Your task to perform on an android device: change the upload size in google photos Image 0: 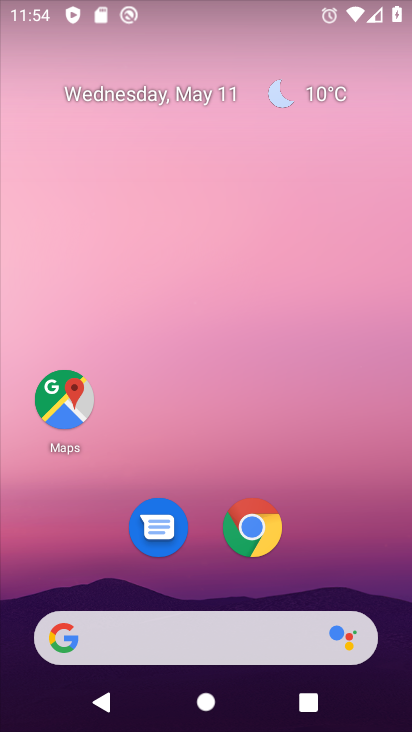
Step 0: drag from (235, 586) to (268, 27)
Your task to perform on an android device: change the upload size in google photos Image 1: 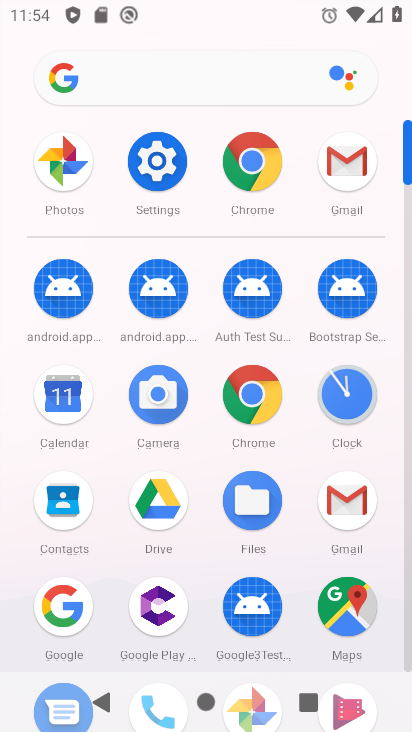
Step 1: drag from (222, 629) to (253, 330)
Your task to perform on an android device: change the upload size in google photos Image 2: 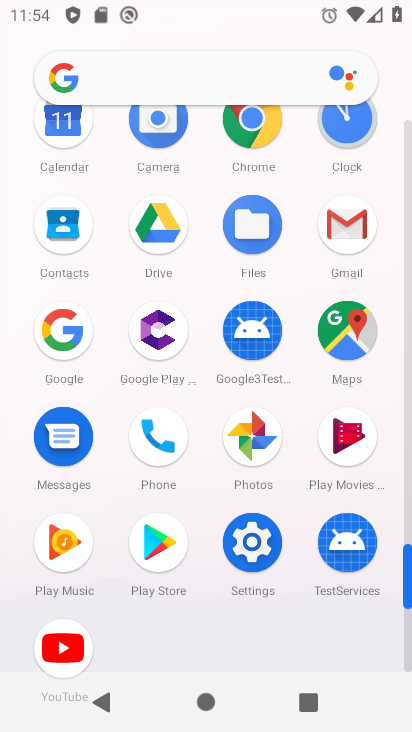
Step 2: click (261, 444)
Your task to perform on an android device: change the upload size in google photos Image 3: 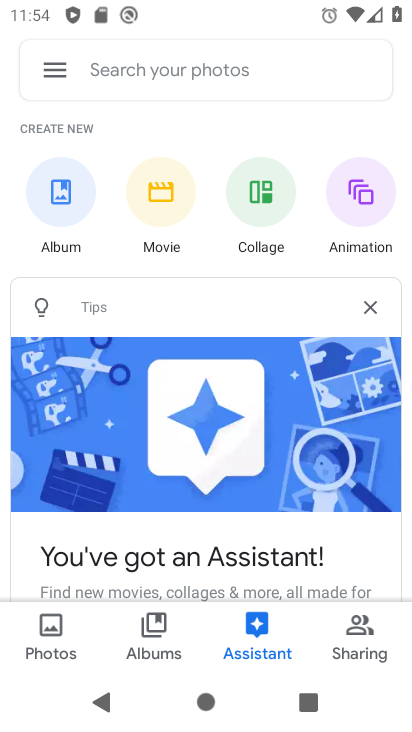
Step 3: drag from (210, 524) to (240, 387)
Your task to perform on an android device: change the upload size in google photos Image 4: 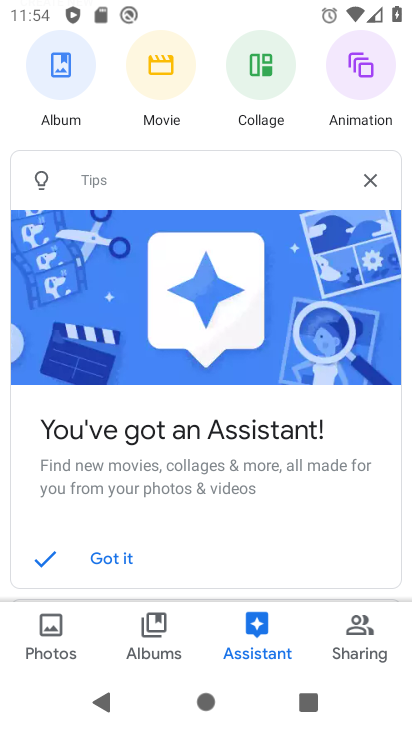
Step 4: drag from (97, 253) to (94, 561)
Your task to perform on an android device: change the upload size in google photos Image 5: 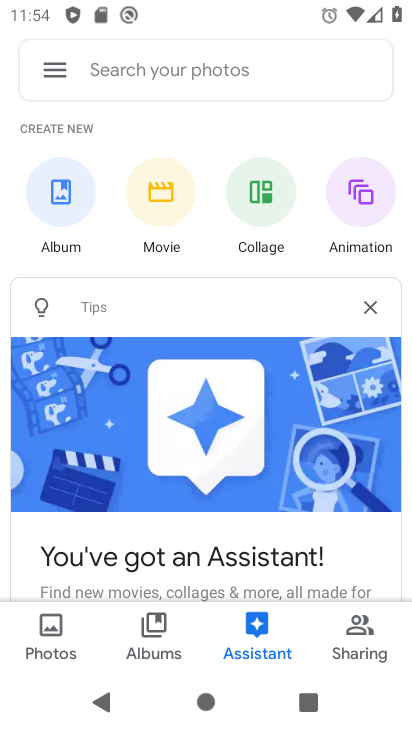
Step 5: click (47, 77)
Your task to perform on an android device: change the upload size in google photos Image 6: 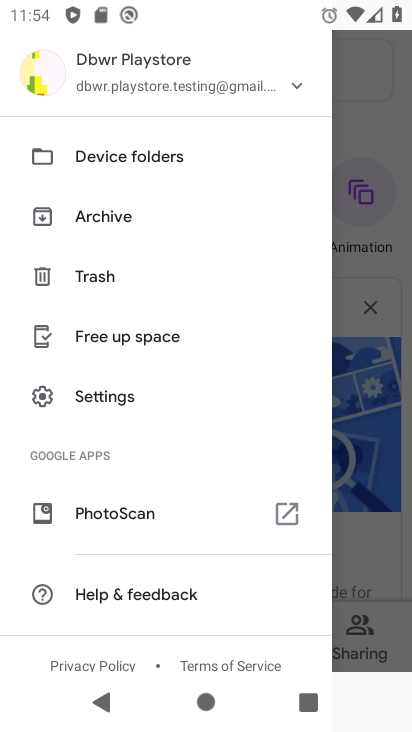
Step 6: click (117, 410)
Your task to perform on an android device: change the upload size in google photos Image 7: 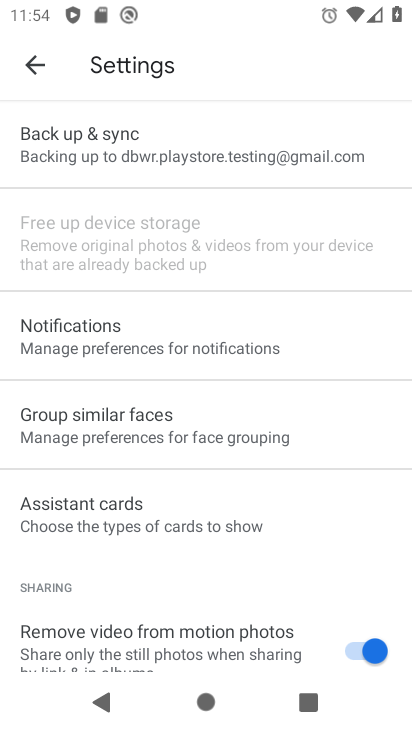
Step 7: click (149, 157)
Your task to perform on an android device: change the upload size in google photos Image 8: 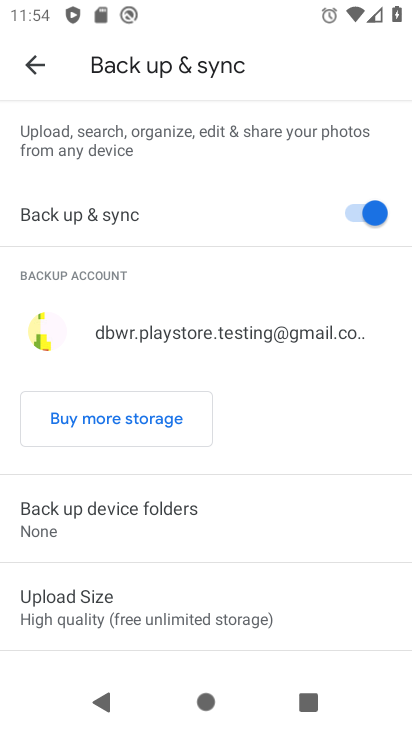
Step 8: drag from (141, 535) to (185, 289)
Your task to perform on an android device: change the upload size in google photos Image 9: 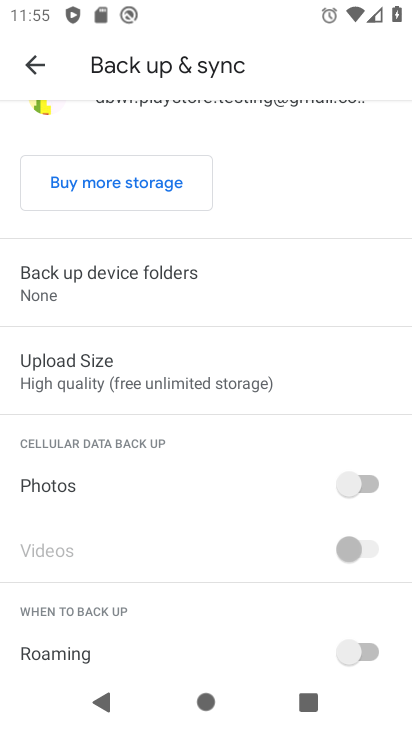
Step 9: click (128, 384)
Your task to perform on an android device: change the upload size in google photos Image 10: 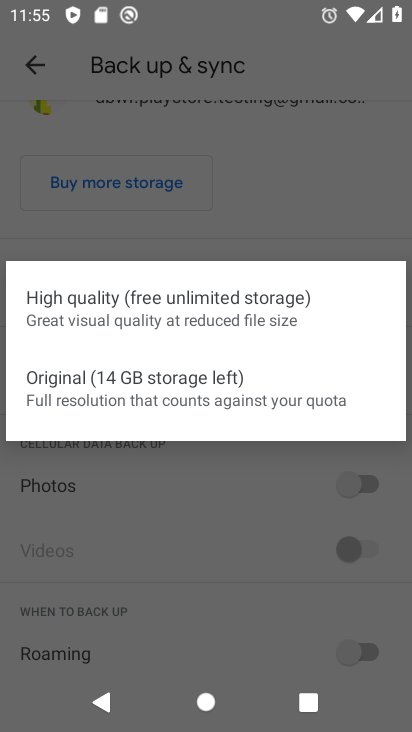
Step 10: click (126, 387)
Your task to perform on an android device: change the upload size in google photos Image 11: 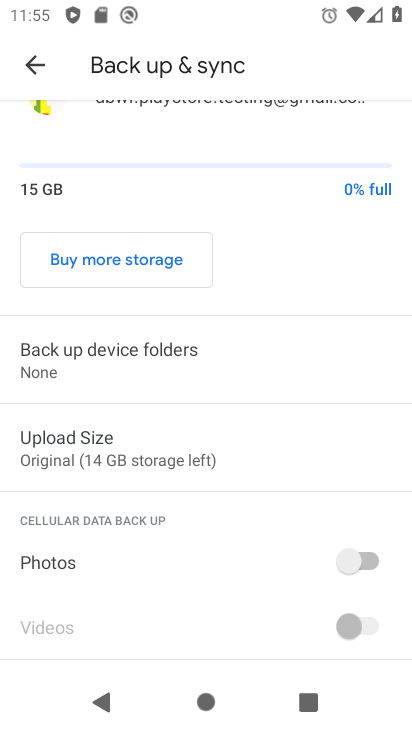
Step 11: task complete